Your task to perform on an android device: open a bookmark in the chrome app Image 0: 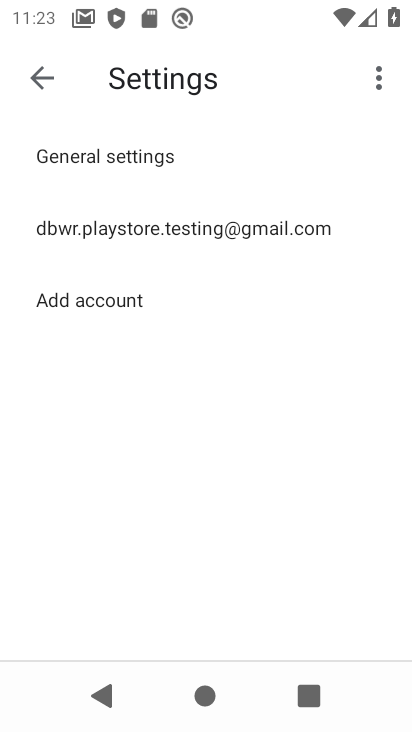
Step 0: press home button
Your task to perform on an android device: open a bookmark in the chrome app Image 1: 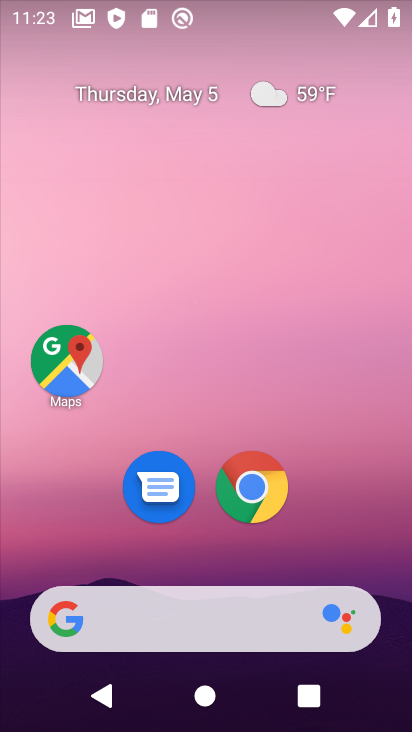
Step 1: click (262, 495)
Your task to perform on an android device: open a bookmark in the chrome app Image 2: 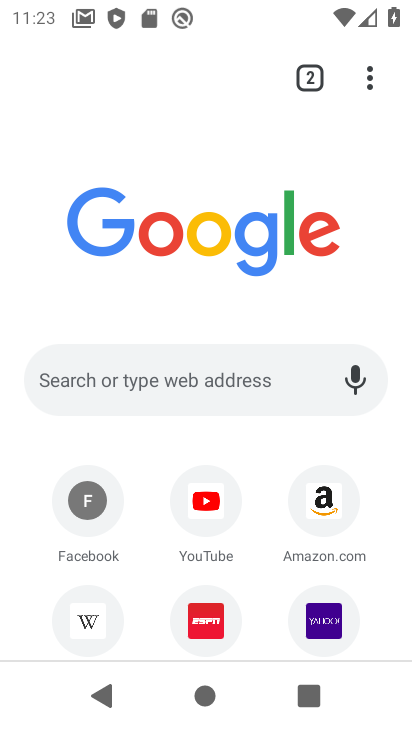
Step 2: task complete